Your task to perform on an android device: Show me productivity apps on the Play Store Image 0: 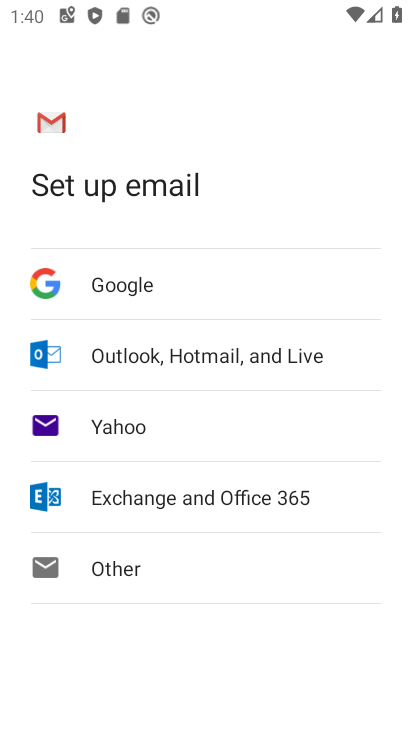
Step 0: press home button
Your task to perform on an android device: Show me productivity apps on the Play Store Image 1: 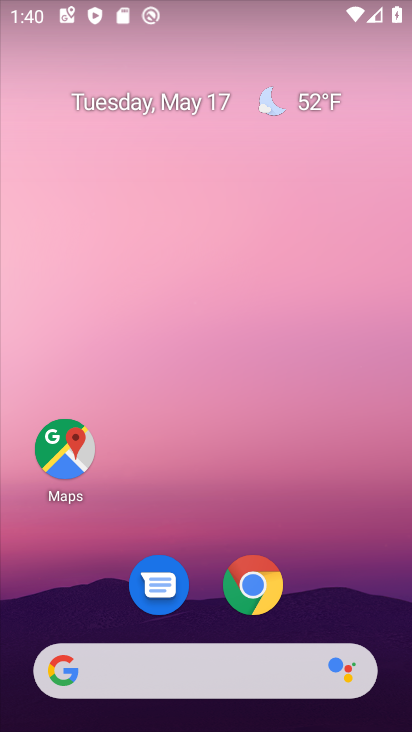
Step 1: drag from (214, 497) to (241, 79)
Your task to perform on an android device: Show me productivity apps on the Play Store Image 2: 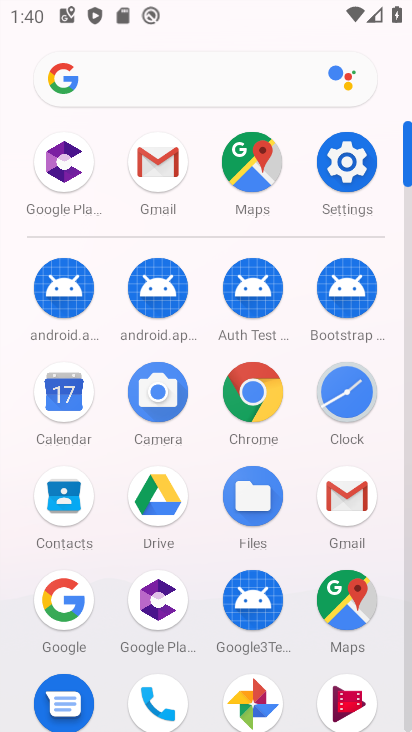
Step 2: drag from (198, 516) to (228, 256)
Your task to perform on an android device: Show me productivity apps on the Play Store Image 3: 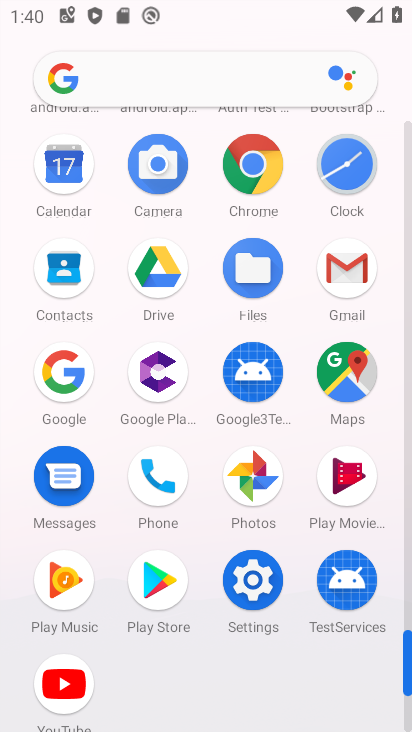
Step 3: click (166, 572)
Your task to perform on an android device: Show me productivity apps on the Play Store Image 4: 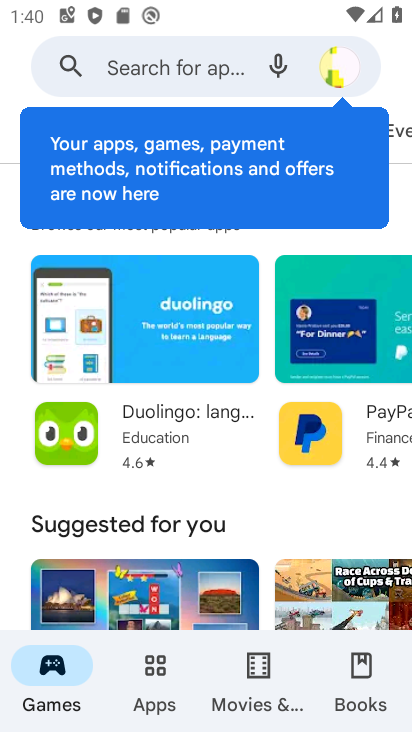
Step 4: click (161, 667)
Your task to perform on an android device: Show me productivity apps on the Play Store Image 5: 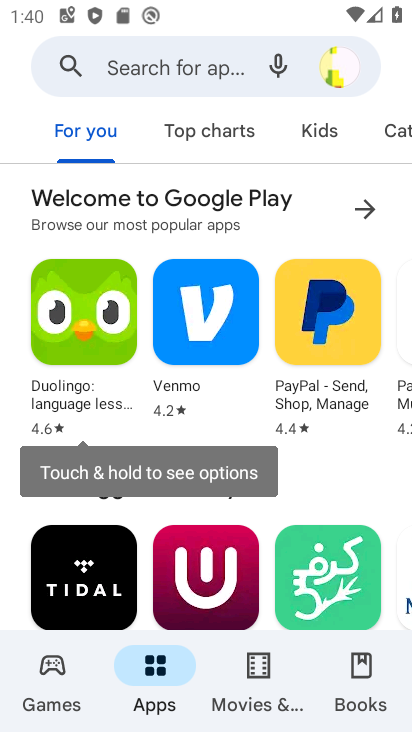
Step 5: click (396, 132)
Your task to perform on an android device: Show me productivity apps on the Play Store Image 6: 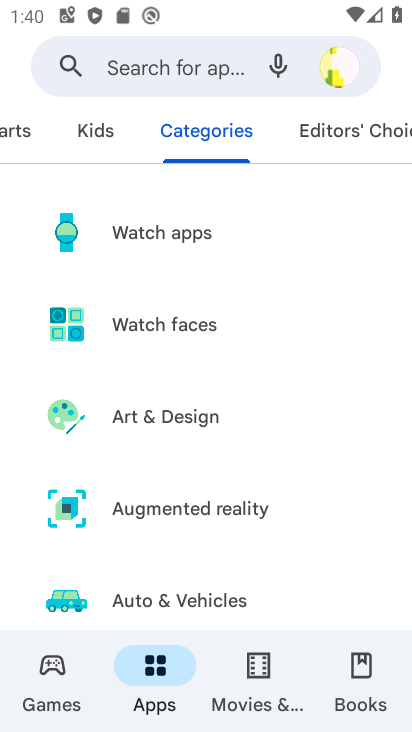
Step 6: drag from (285, 542) to (310, 103)
Your task to perform on an android device: Show me productivity apps on the Play Store Image 7: 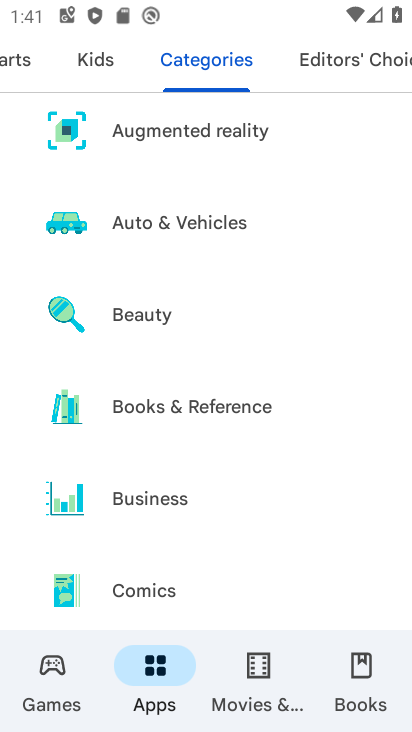
Step 7: drag from (203, 526) to (210, 103)
Your task to perform on an android device: Show me productivity apps on the Play Store Image 8: 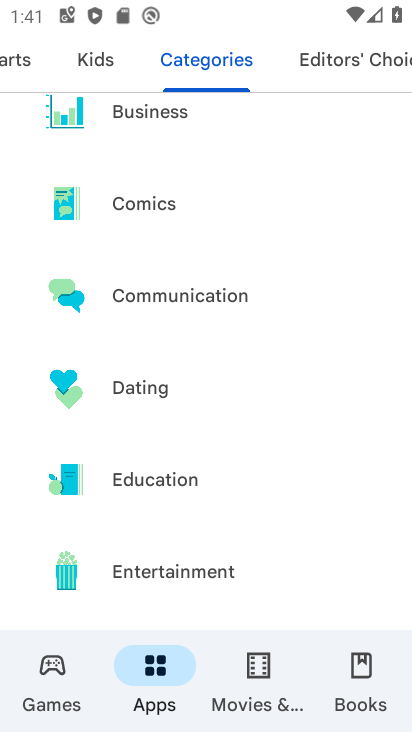
Step 8: drag from (179, 511) to (206, 151)
Your task to perform on an android device: Show me productivity apps on the Play Store Image 9: 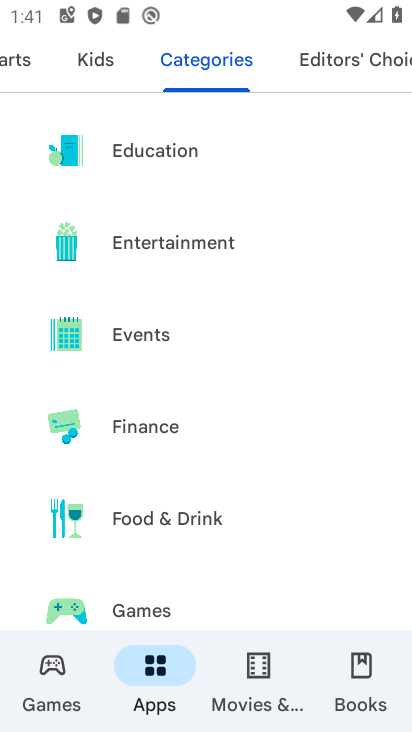
Step 9: drag from (243, 613) to (289, 125)
Your task to perform on an android device: Show me productivity apps on the Play Store Image 10: 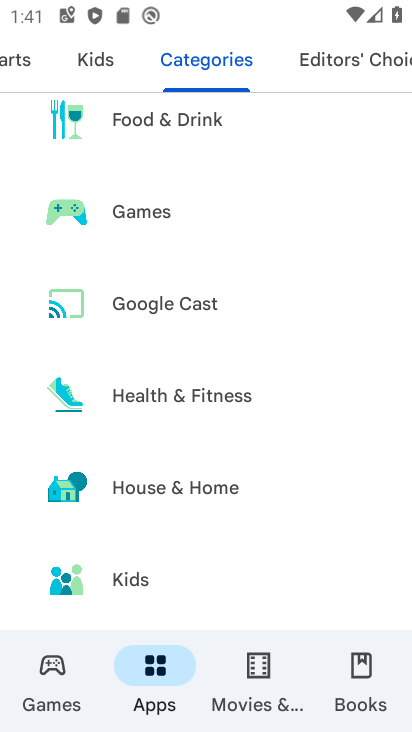
Step 10: drag from (248, 540) to (261, 137)
Your task to perform on an android device: Show me productivity apps on the Play Store Image 11: 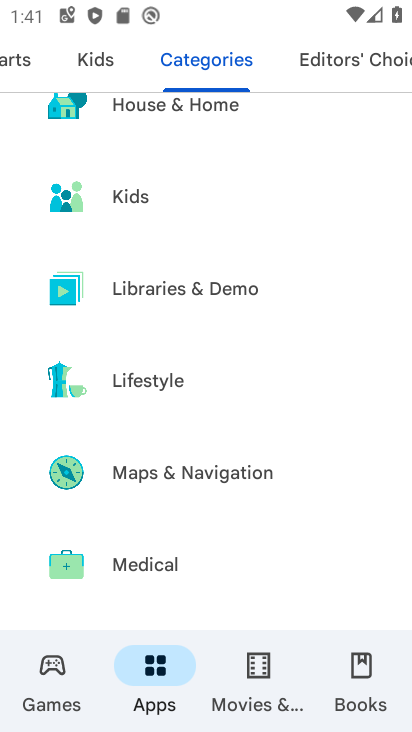
Step 11: drag from (256, 553) to (234, 183)
Your task to perform on an android device: Show me productivity apps on the Play Store Image 12: 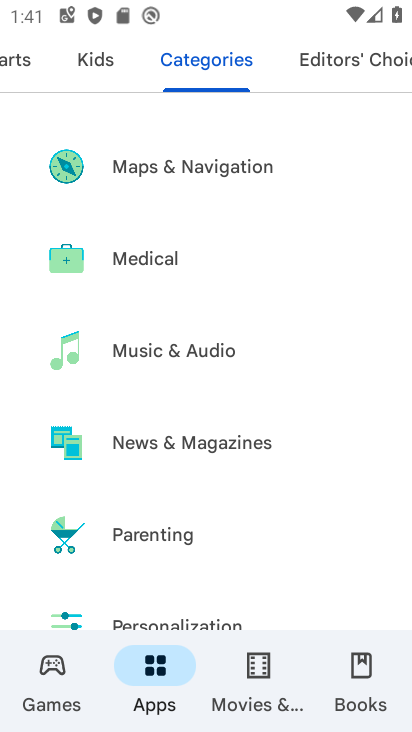
Step 12: drag from (234, 563) to (237, 247)
Your task to perform on an android device: Show me productivity apps on the Play Store Image 13: 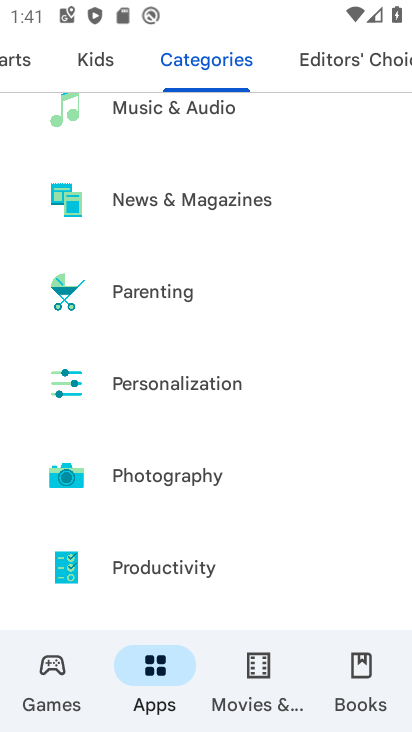
Step 13: click (201, 564)
Your task to perform on an android device: Show me productivity apps on the Play Store Image 14: 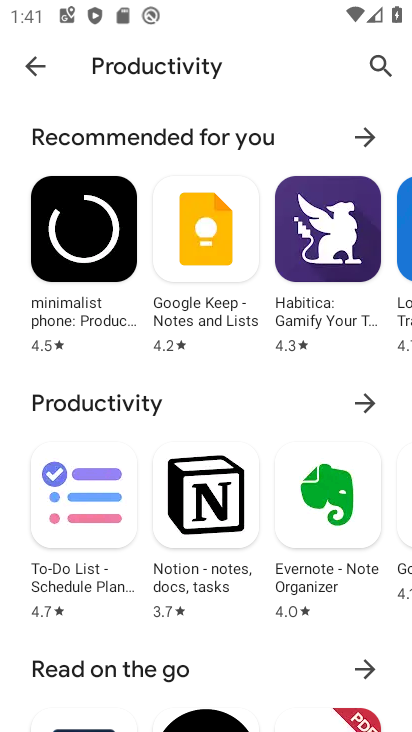
Step 14: task complete